Your task to perform on an android device: When is my next meeting? Image 0: 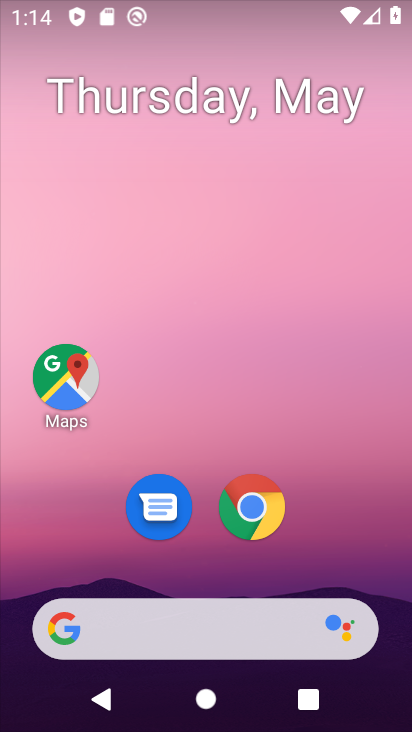
Step 0: drag from (316, 570) to (341, 149)
Your task to perform on an android device: When is my next meeting? Image 1: 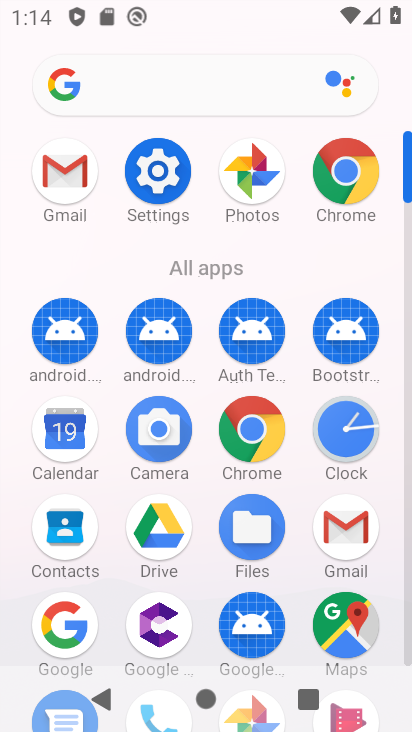
Step 1: click (80, 420)
Your task to perform on an android device: When is my next meeting? Image 2: 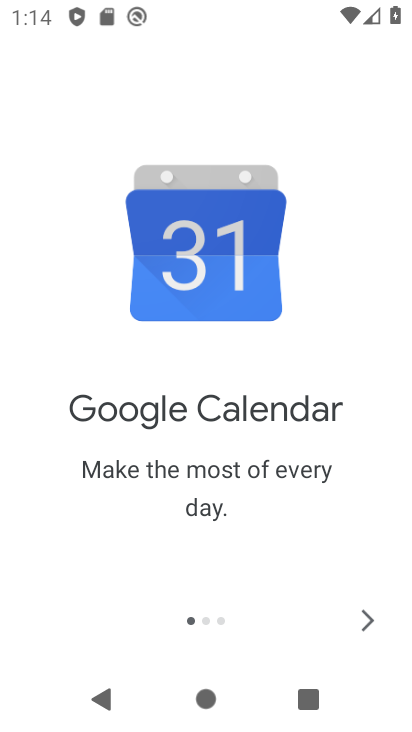
Step 2: click (364, 607)
Your task to perform on an android device: When is my next meeting? Image 3: 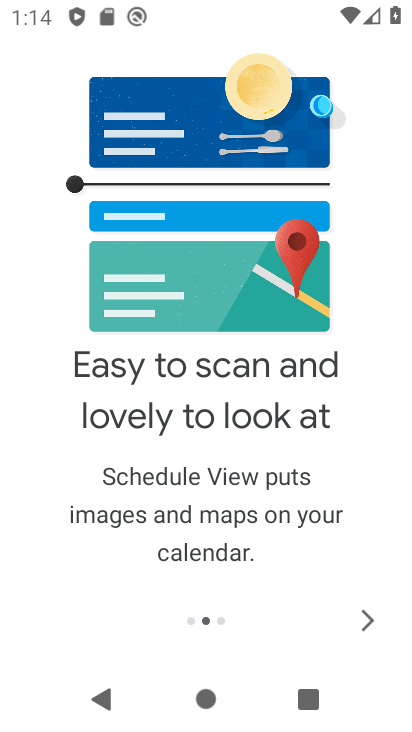
Step 3: click (360, 602)
Your task to perform on an android device: When is my next meeting? Image 4: 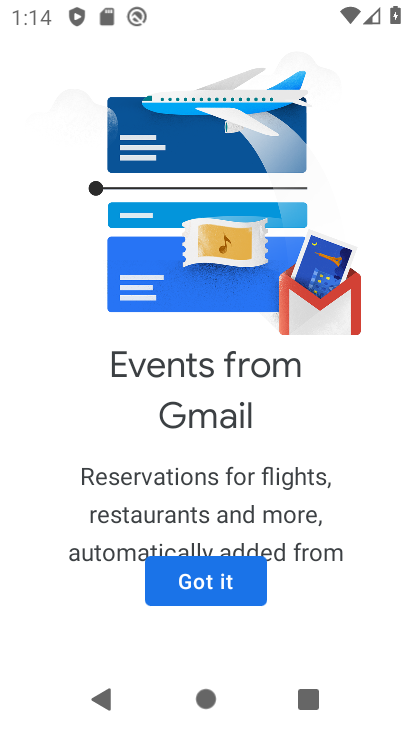
Step 4: click (232, 583)
Your task to perform on an android device: When is my next meeting? Image 5: 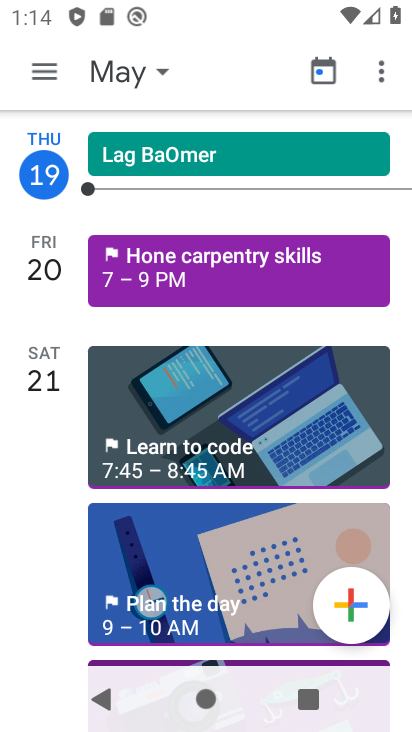
Step 5: click (49, 57)
Your task to perform on an android device: When is my next meeting? Image 6: 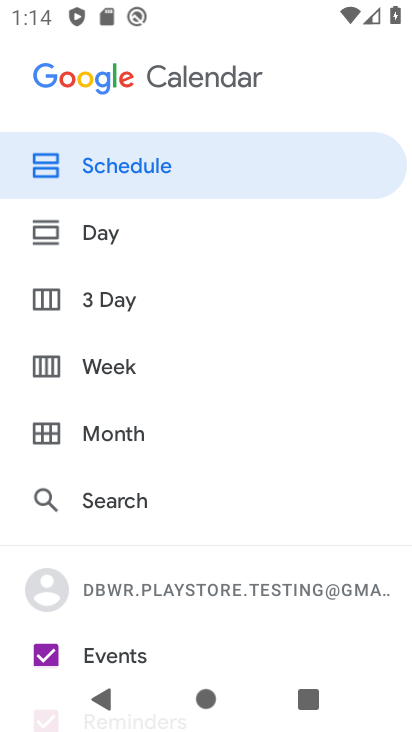
Step 6: click (114, 162)
Your task to perform on an android device: When is my next meeting? Image 7: 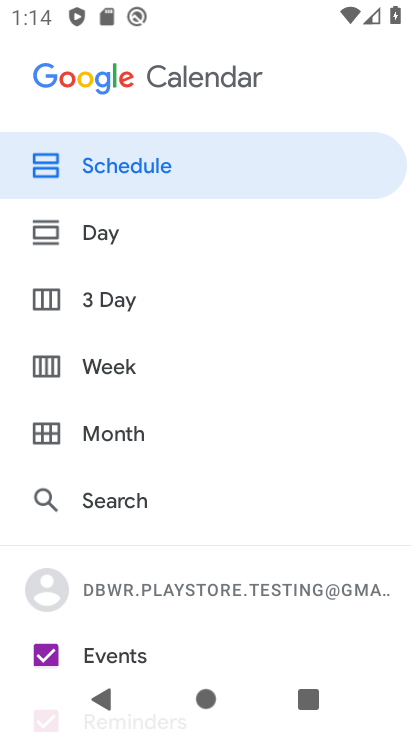
Step 7: task complete